Your task to perform on an android device: Open Amazon Image 0: 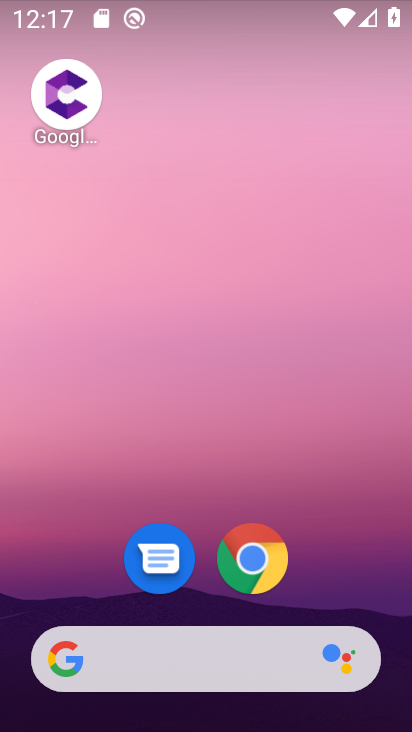
Step 0: click (271, 558)
Your task to perform on an android device: Open Amazon Image 1: 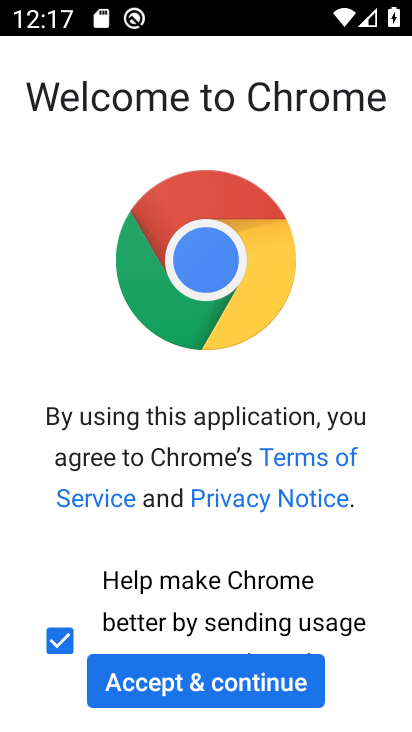
Step 1: click (230, 675)
Your task to perform on an android device: Open Amazon Image 2: 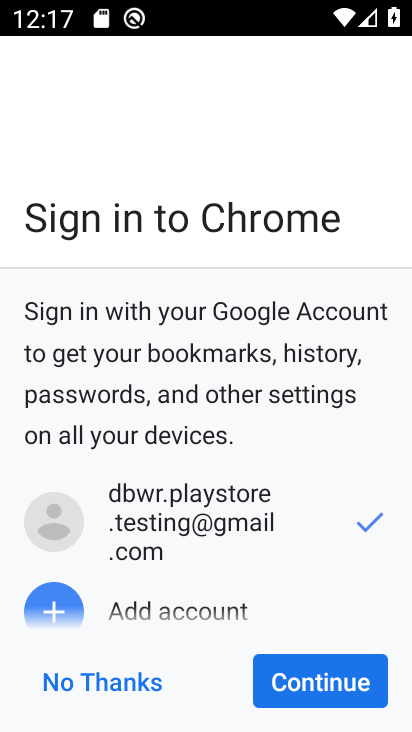
Step 2: click (296, 679)
Your task to perform on an android device: Open Amazon Image 3: 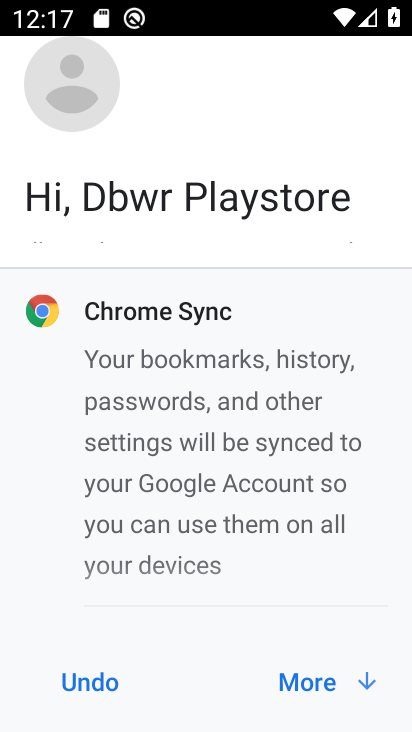
Step 3: click (296, 680)
Your task to perform on an android device: Open Amazon Image 4: 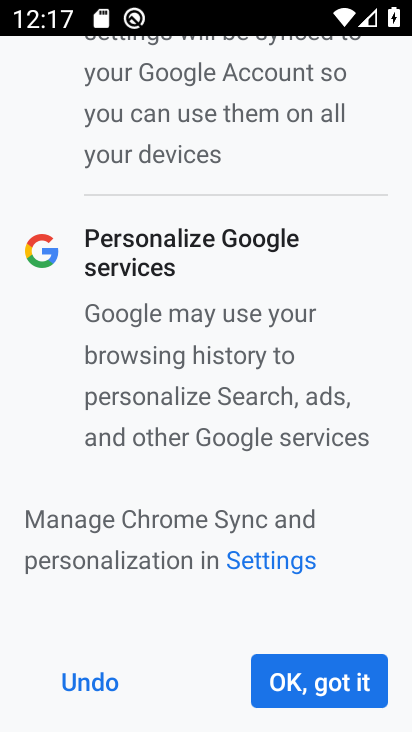
Step 4: click (298, 679)
Your task to perform on an android device: Open Amazon Image 5: 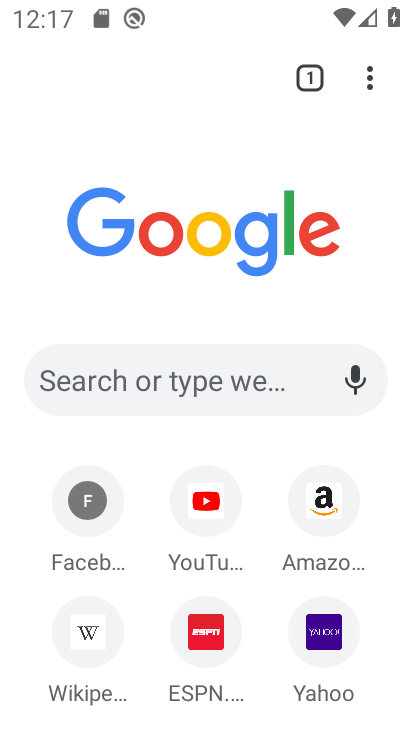
Step 5: click (331, 496)
Your task to perform on an android device: Open Amazon Image 6: 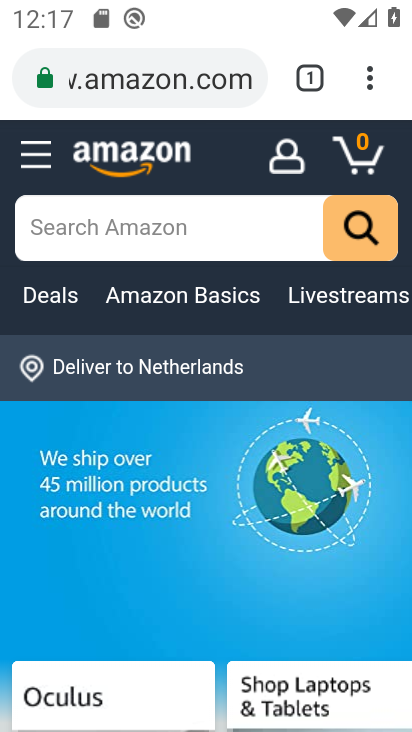
Step 6: task complete